Your task to perform on an android device: change notifications settings Image 0: 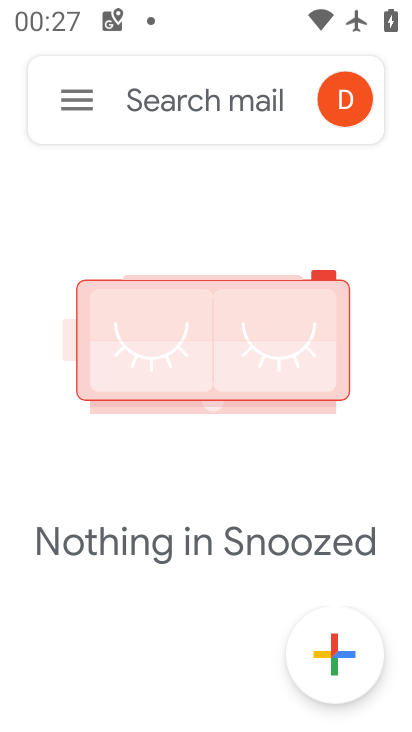
Step 0: press home button
Your task to perform on an android device: change notifications settings Image 1: 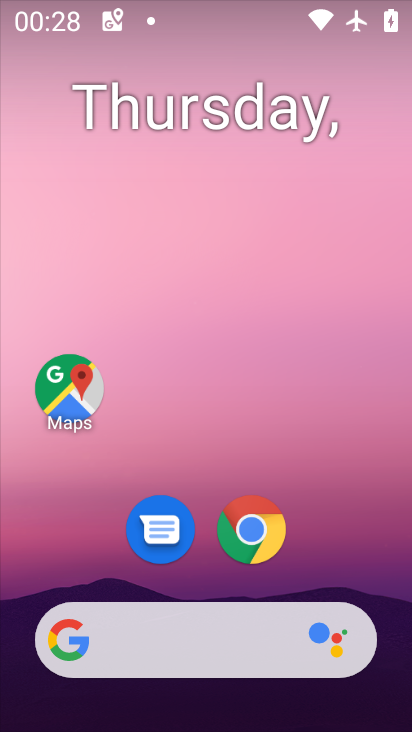
Step 1: drag from (394, 635) to (351, 145)
Your task to perform on an android device: change notifications settings Image 2: 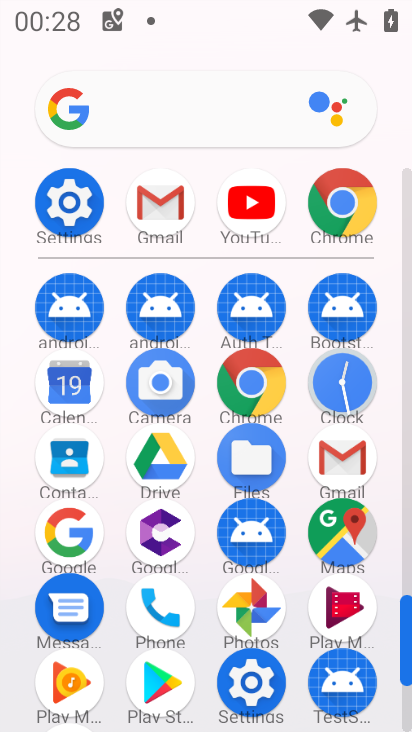
Step 2: click (405, 716)
Your task to perform on an android device: change notifications settings Image 3: 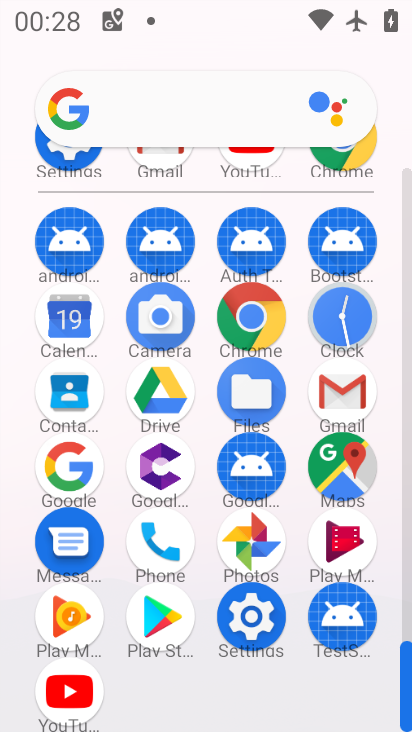
Step 3: click (247, 616)
Your task to perform on an android device: change notifications settings Image 4: 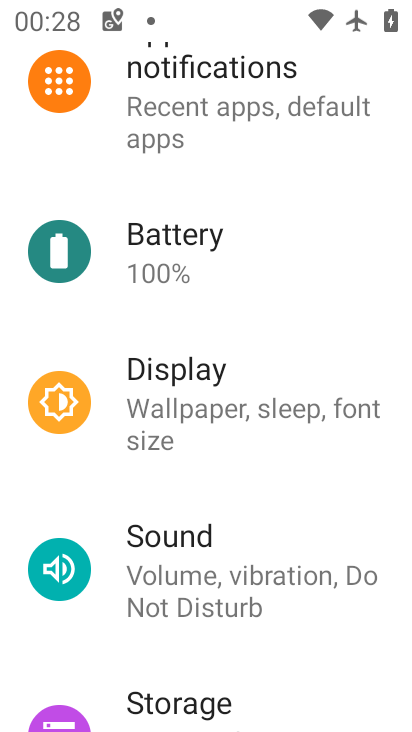
Step 4: drag from (330, 210) to (363, 496)
Your task to perform on an android device: change notifications settings Image 5: 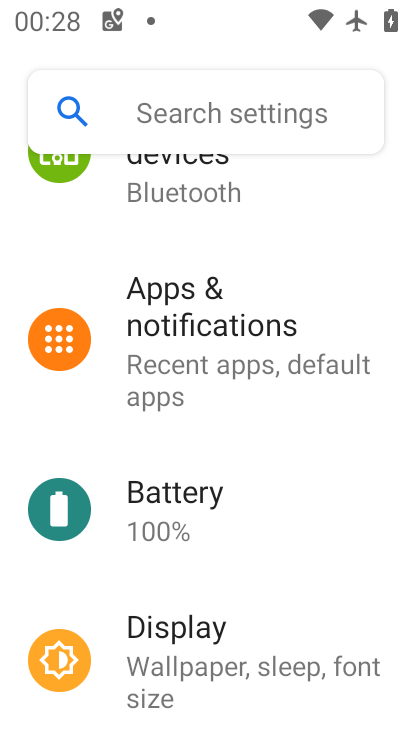
Step 5: click (187, 329)
Your task to perform on an android device: change notifications settings Image 6: 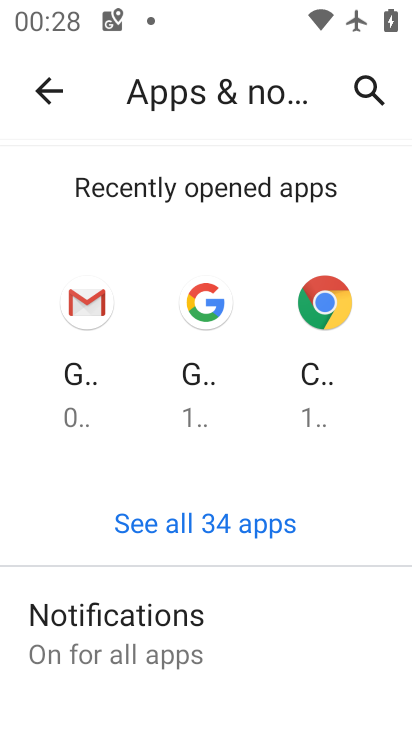
Step 6: drag from (261, 674) to (339, 286)
Your task to perform on an android device: change notifications settings Image 7: 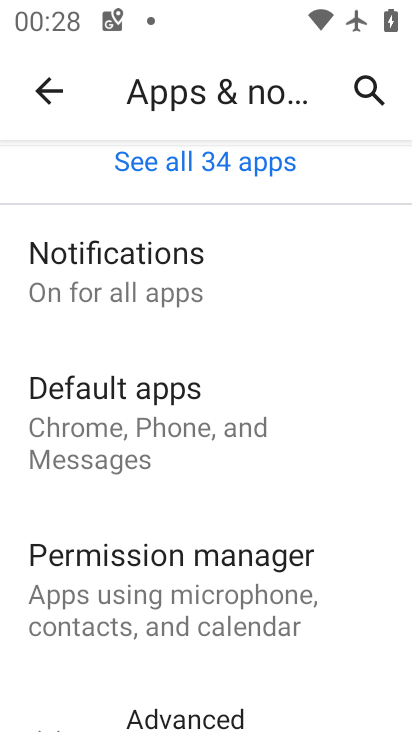
Step 7: click (78, 262)
Your task to perform on an android device: change notifications settings Image 8: 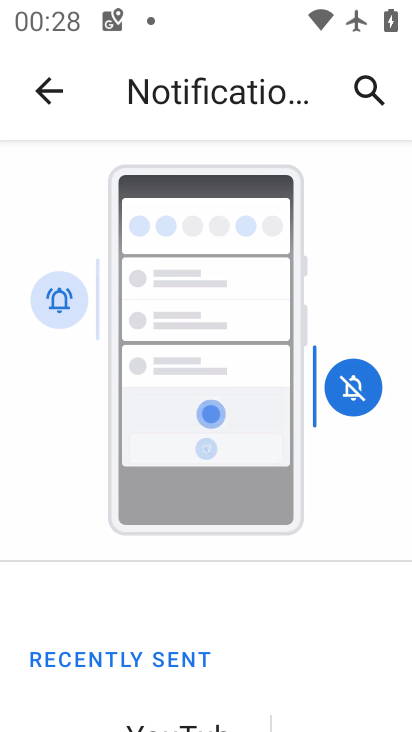
Step 8: drag from (288, 698) to (284, 198)
Your task to perform on an android device: change notifications settings Image 9: 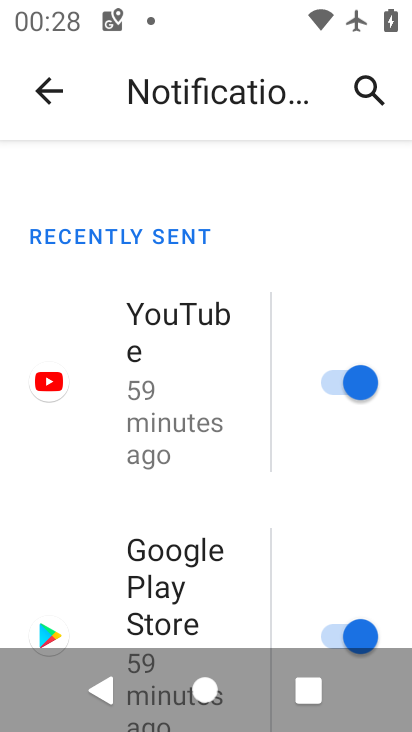
Step 9: drag from (277, 630) to (239, 39)
Your task to perform on an android device: change notifications settings Image 10: 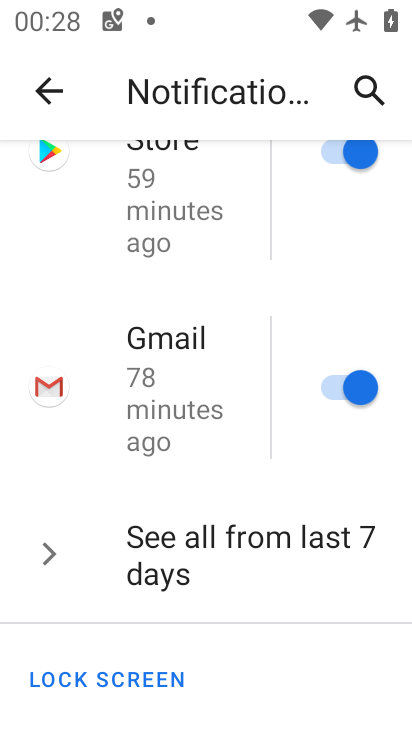
Step 10: drag from (271, 618) to (255, 159)
Your task to perform on an android device: change notifications settings Image 11: 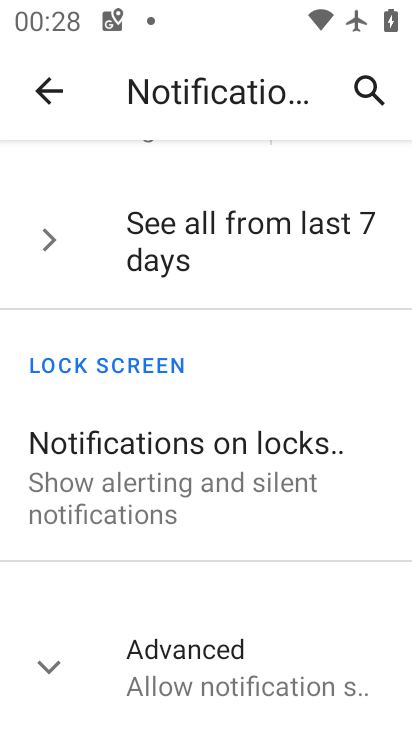
Step 11: click (51, 672)
Your task to perform on an android device: change notifications settings Image 12: 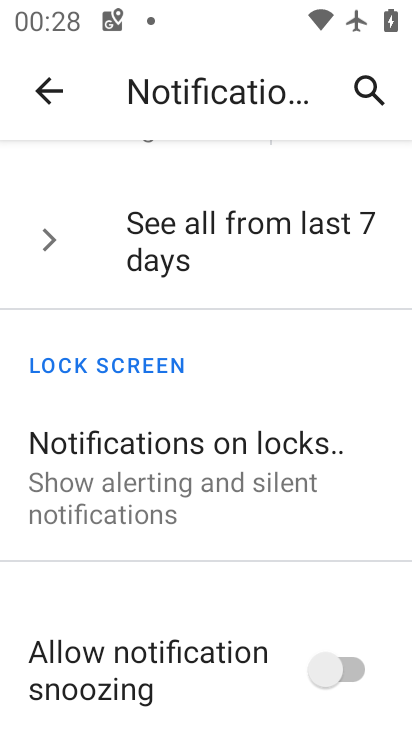
Step 12: drag from (274, 662) to (288, 233)
Your task to perform on an android device: change notifications settings Image 13: 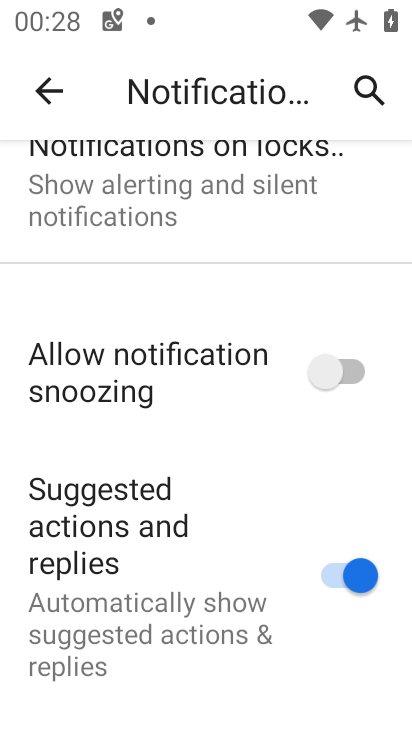
Step 13: click (339, 377)
Your task to perform on an android device: change notifications settings Image 14: 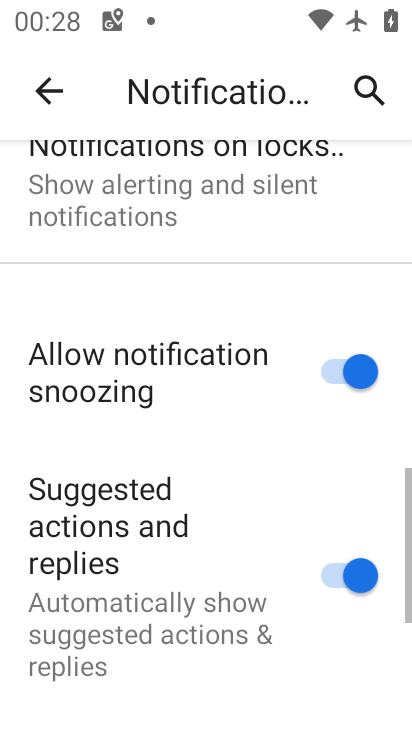
Step 14: drag from (244, 621) to (253, 151)
Your task to perform on an android device: change notifications settings Image 15: 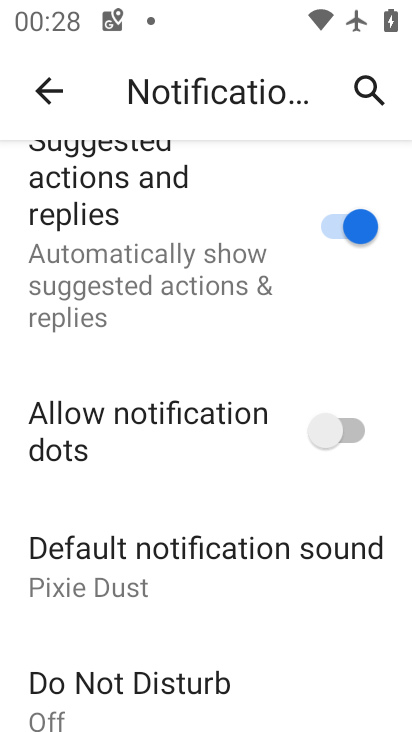
Step 15: click (350, 440)
Your task to perform on an android device: change notifications settings Image 16: 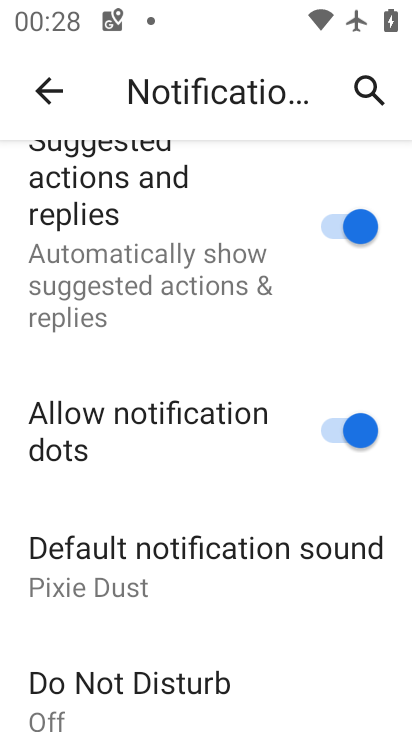
Step 16: task complete